Your task to perform on an android device: Open the web browser Image 0: 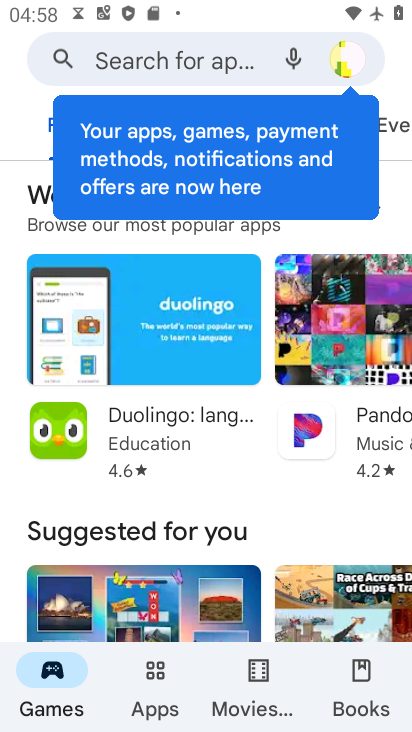
Step 0: press back button
Your task to perform on an android device: Open the web browser Image 1: 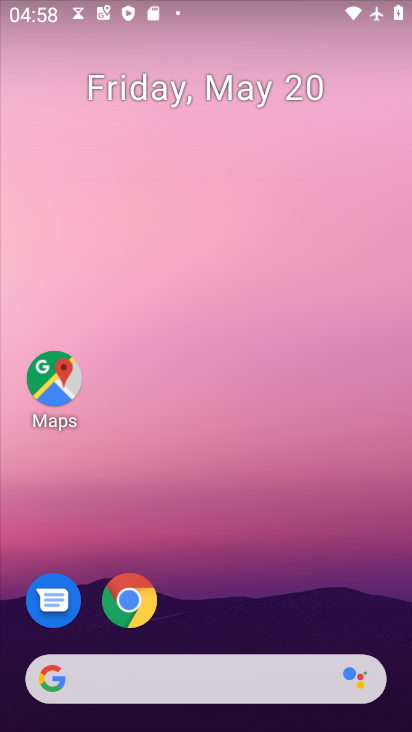
Step 1: drag from (210, 572) to (192, 82)
Your task to perform on an android device: Open the web browser Image 2: 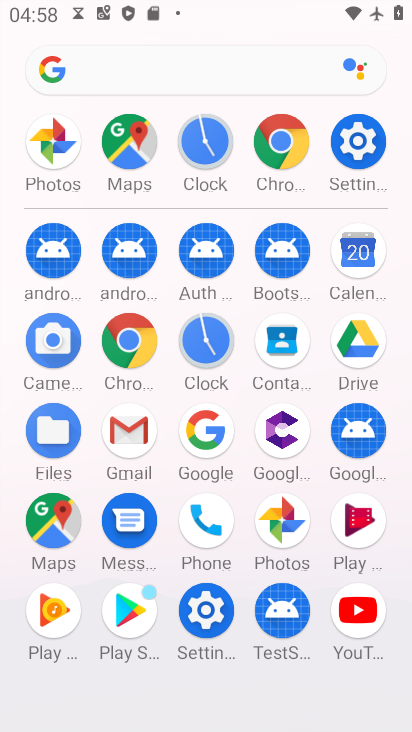
Step 2: drag from (5, 534) to (4, 251)
Your task to perform on an android device: Open the web browser Image 3: 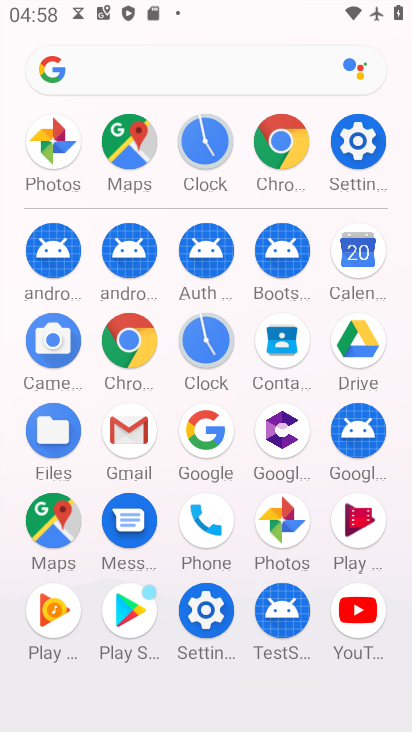
Step 3: click (125, 335)
Your task to perform on an android device: Open the web browser Image 4: 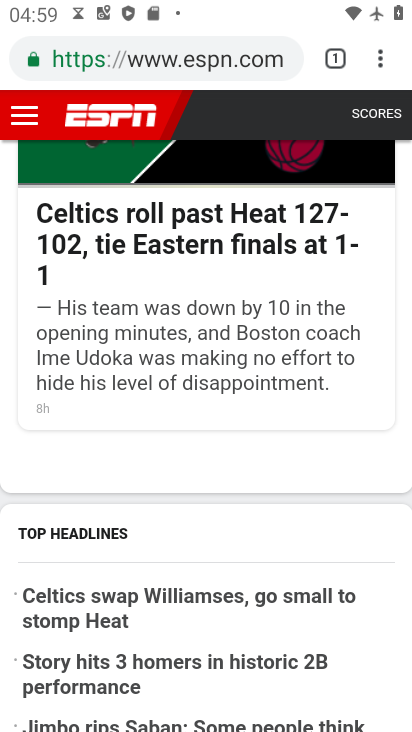
Step 4: task complete